Your task to perform on an android device: Open display settings Image 0: 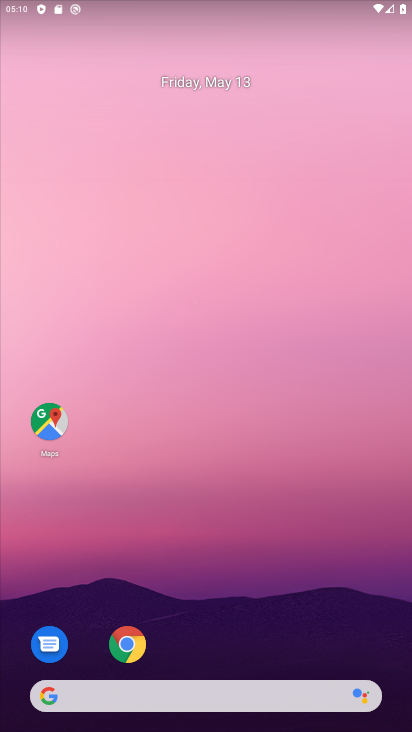
Step 0: drag from (268, 659) to (308, 65)
Your task to perform on an android device: Open display settings Image 1: 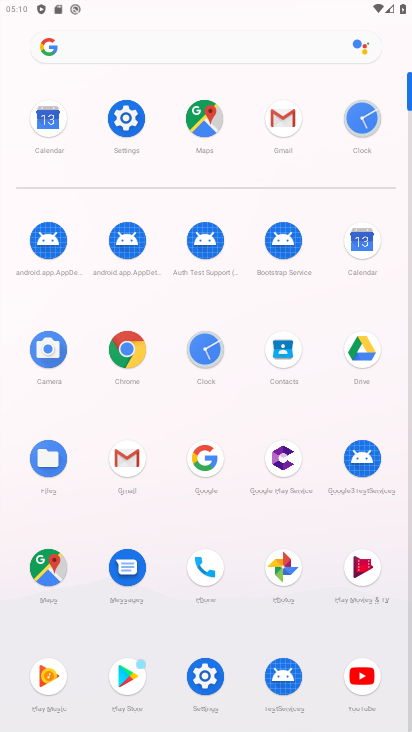
Step 1: click (118, 141)
Your task to perform on an android device: Open display settings Image 2: 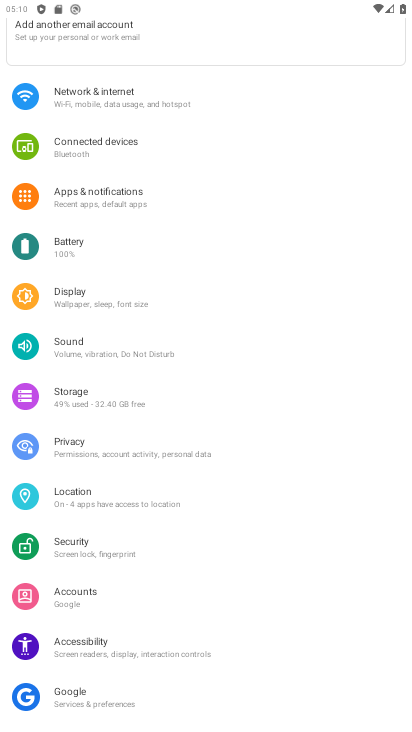
Step 2: click (79, 303)
Your task to perform on an android device: Open display settings Image 3: 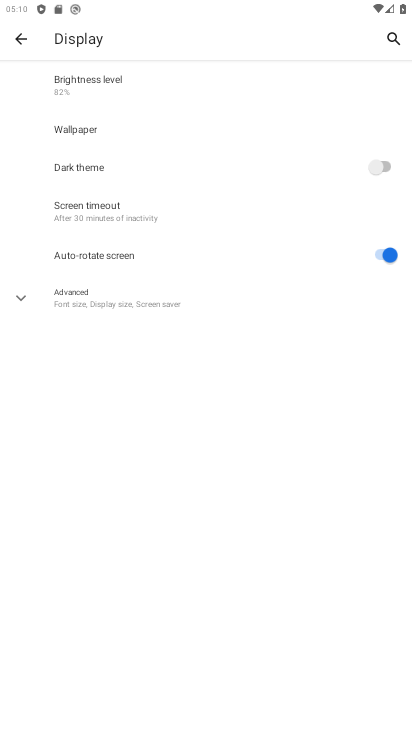
Step 3: task complete